Your task to perform on an android device: Show me the alarms in the clock app Image 0: 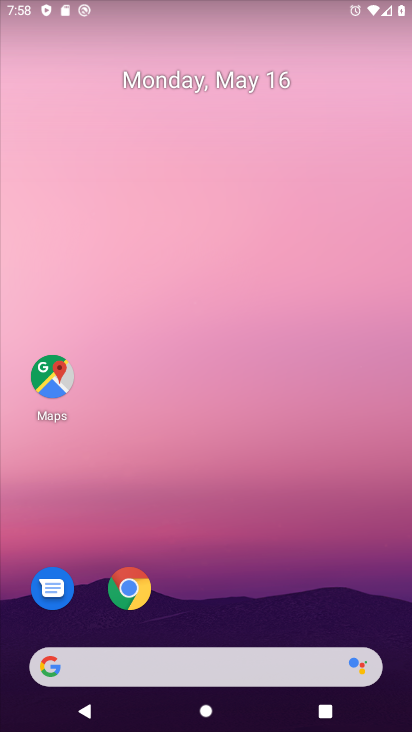
Step 0: drag from (94, 163) to (74, 124)
Your task to perform on an android device: Show me the alarms in the clock app Image 1: 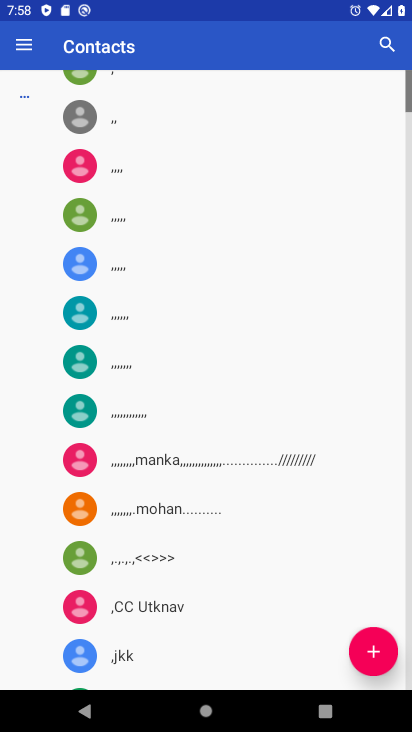
Step 1: press home button
Your task to perform on an android device: Show me the alarms in the clock app Image 2: 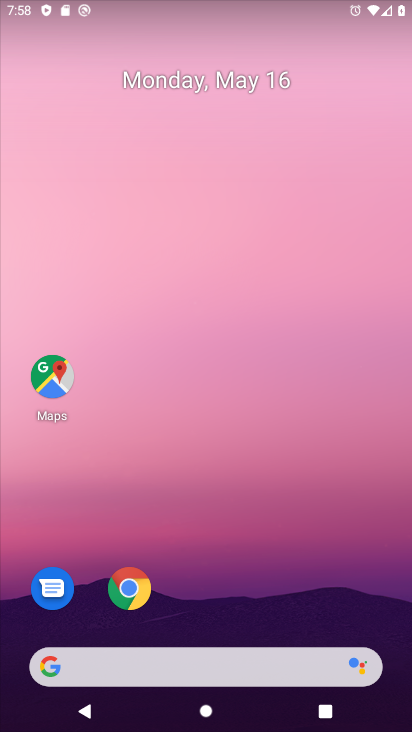
Step 2: drag from (252, 556) to (96, 61)
Your task to perform on an android device: Show me the alarms in the clock app Image 3: 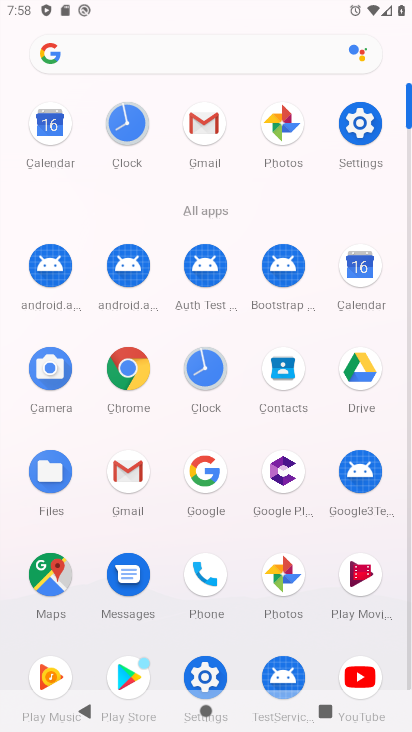
Step 3: click (215, 360)
Your task to perform on an android device: Show me the alarms in the clock app Image 4: 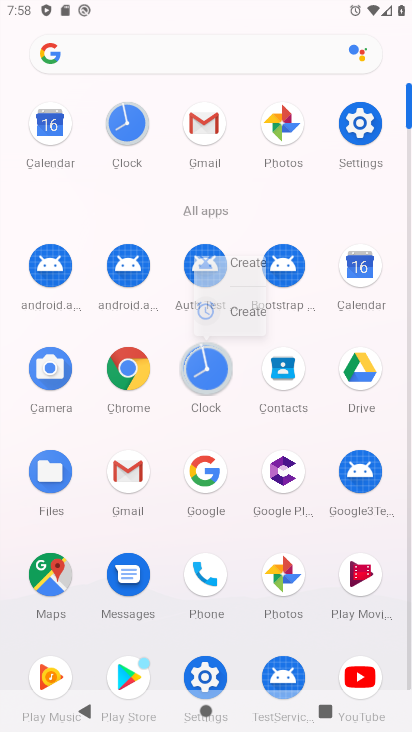
Step 4: click (215, 360)
Your task to perform on an android device: Show me the alarms in the clock app Image 5: 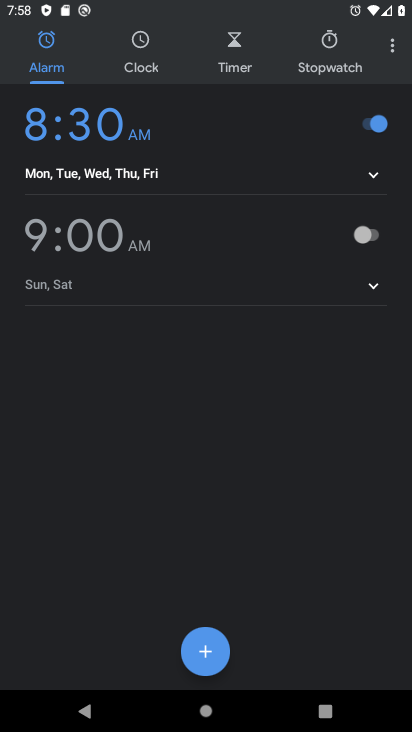
Step 5: click (240, 134)
Your task to perform on an android device: Show me the alarms in the clock app Image 6: 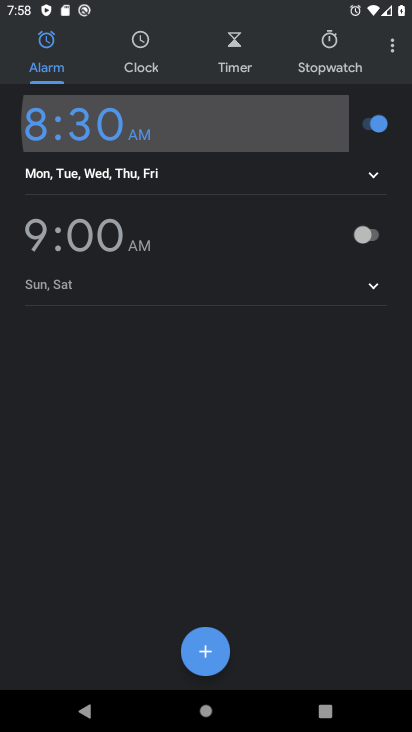
Step 6: click (240, 134)
Your task to perform on an android device: Show me the alarms in the clock app Image 7: 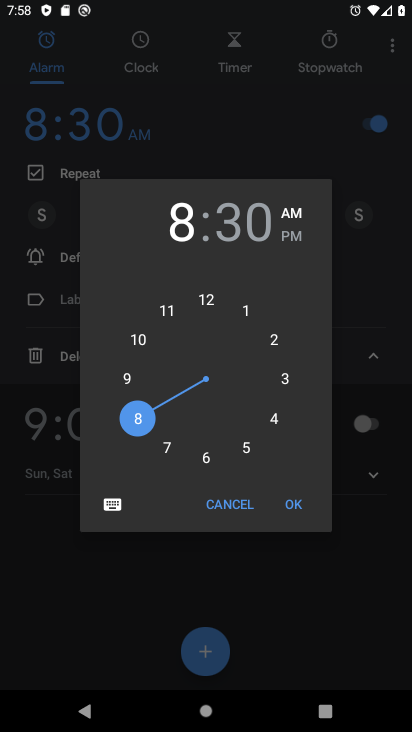
Step 7: click (241, 134)
Your task to perform on an android device: Show me the alarms in the clock app Image 8: 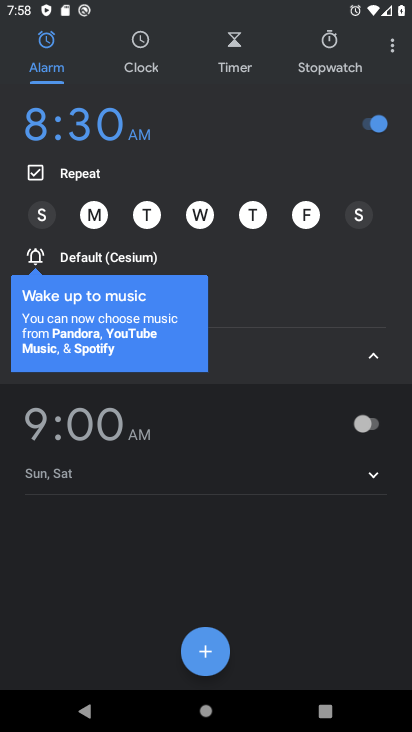
Step 8: task complete